Your task to perform on an android device: turn on improve location accuracy Image 0: 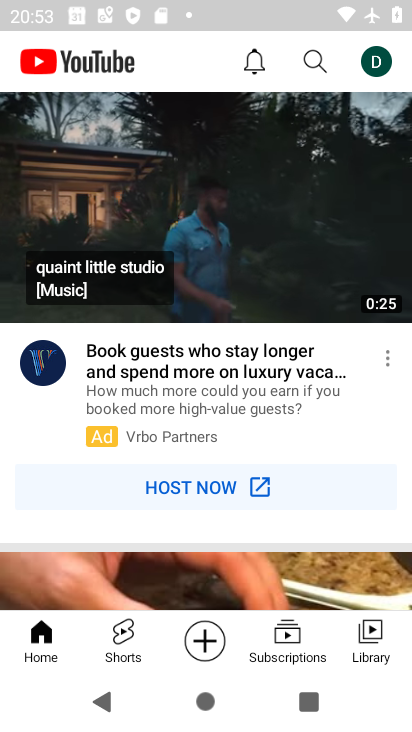
Step 0: press home button
Your task to perform on an android device: turn on improve location accuracy Image 1: 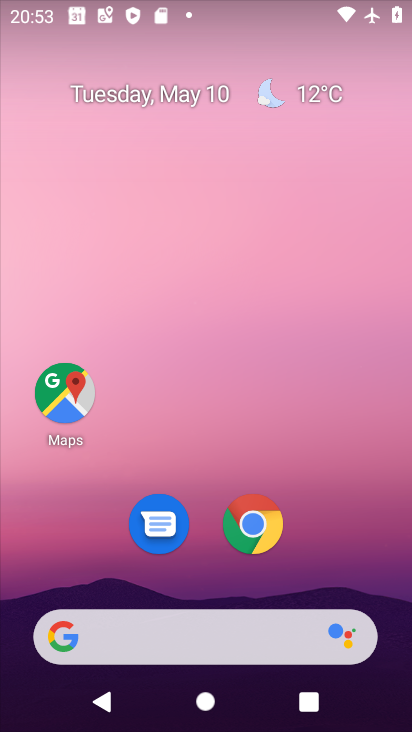
Step 1: drag from (327, 494) to (282, 22)
Your task to perform on an android device: turn on improve location accuracy Image 2: 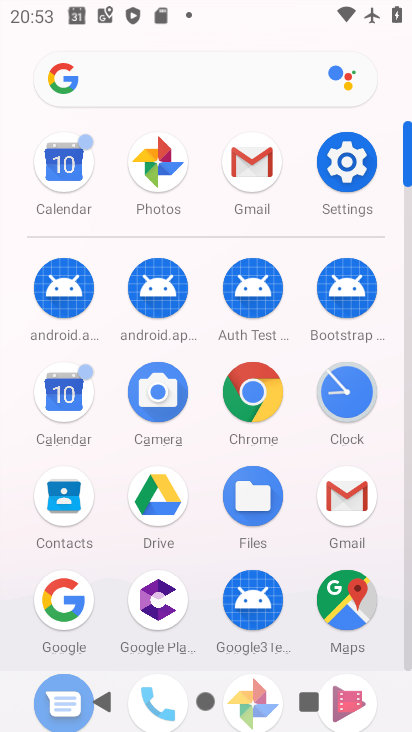
Step 2: click (356, 170)
Your task to perform on an android device: turn on improve location accuracy Image 3: 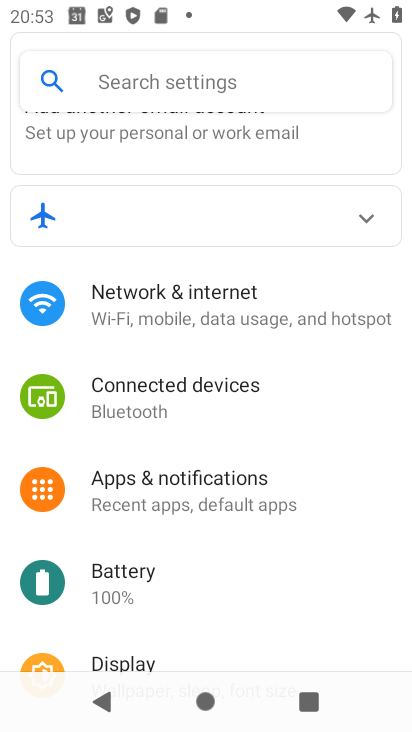
Step 3: drag from (236, 577) to (259, 125)
Your task to perform on an android device: turn on improve location accuracy Image 4: 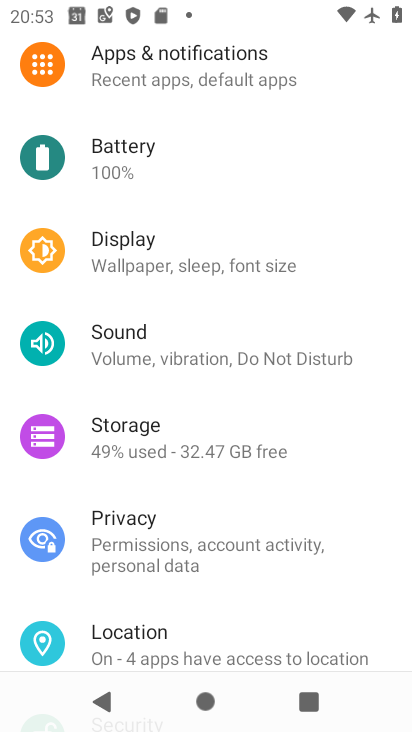
Step 4: click (204, 638)
Your task to perform on an android device: turn on improve location accuracy Image 5: 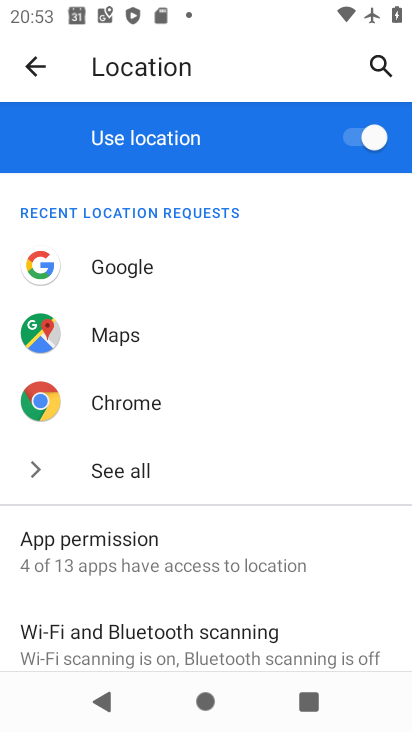
Step 5: drag from (229, 582) to (229, 191)
Your task to perform on an android device: turn on improve location accuracy Image 6: 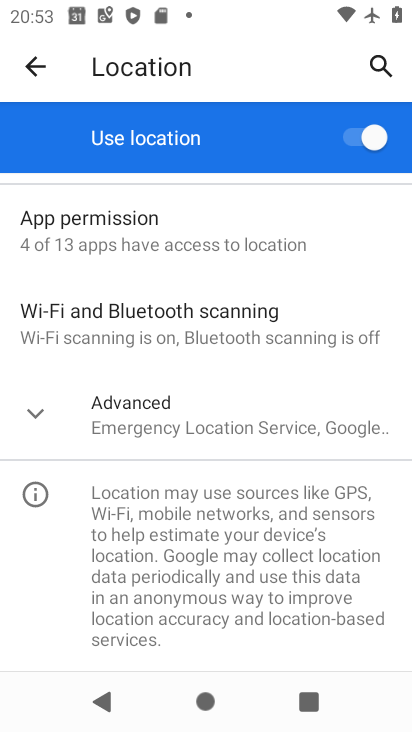
Step 6: click (37, 408)
Your task to perform on an android device: turn on improve location accuracy Image 7: 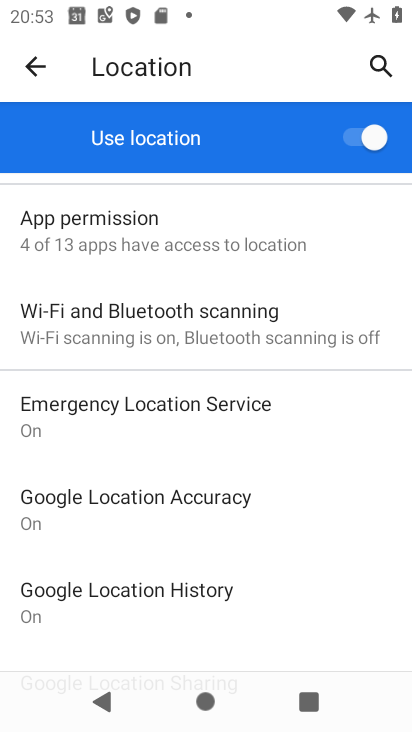
Step 7: task complete